Your task to perform on an android device: turn notification dots off Image 0: 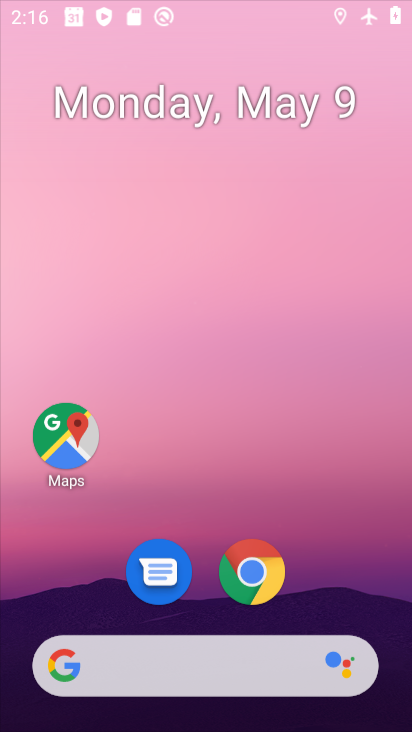
Step 0: click (223, 96)
Your task to perform on an android device: turn notification dots off Image 1: 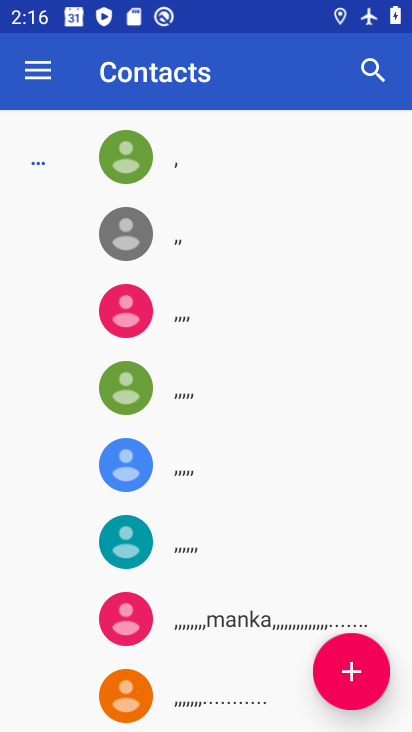
Step 1: press home button
Your task to perform on an android device: turn notification dots off Image 2: 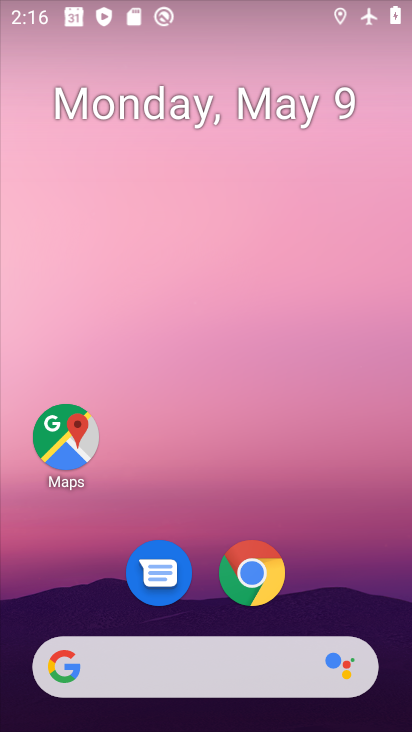
Step 2: drag from (342, 610) to (226, 137)
Your task to perform on an android device: turn notification dots off Image 3: 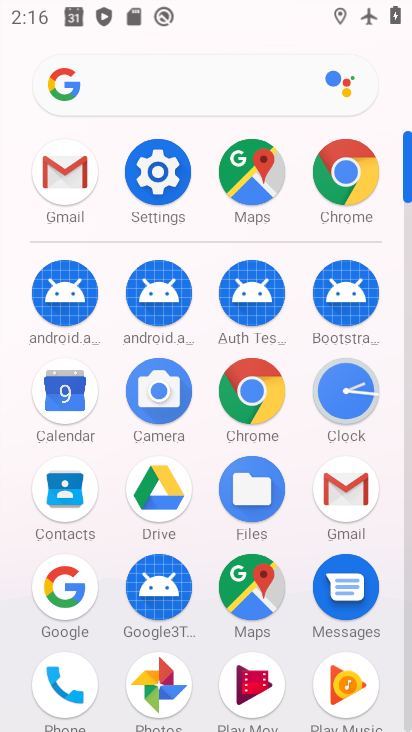
Step 3: drag from (341, 486) to (379, 556)
Your task to perform on an android device: turn notification dots off Image 4: 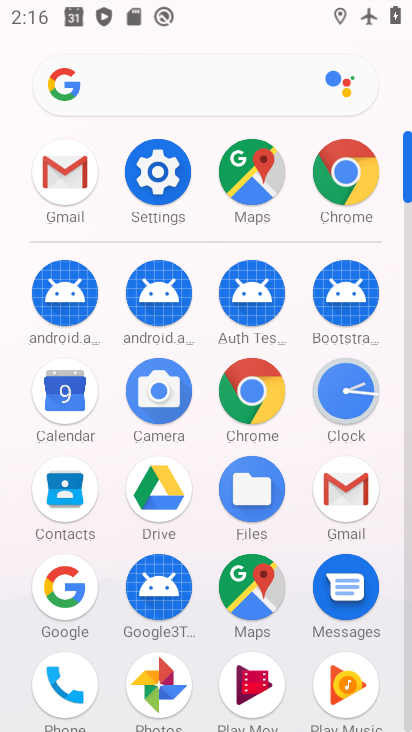
Step 4: click (157, 191)
Your task to perform on an android device: turn notification dots off Image 5: 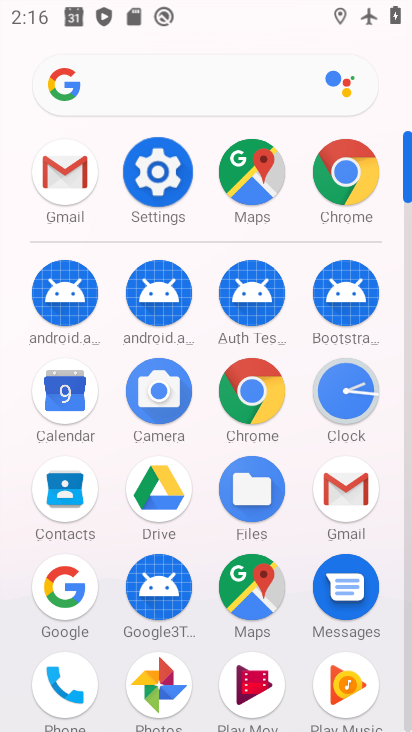
Step 5: click (149, 179)
Your task to perform on an android device: turn notification dots off Image 6: 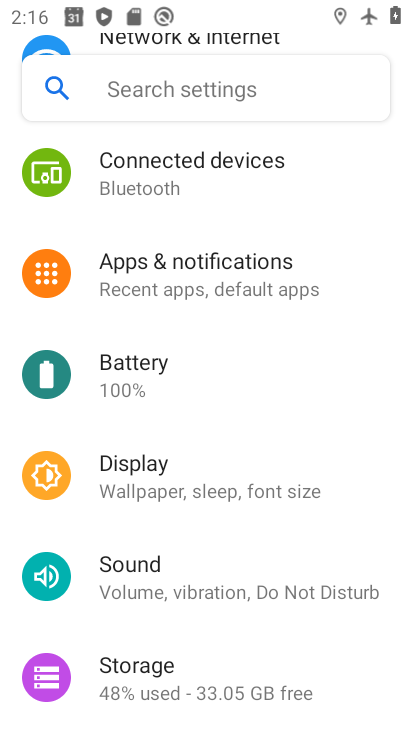
Step 6: click (217, 280)
Your task to perform on an android device: turn notification dots off Image 7: 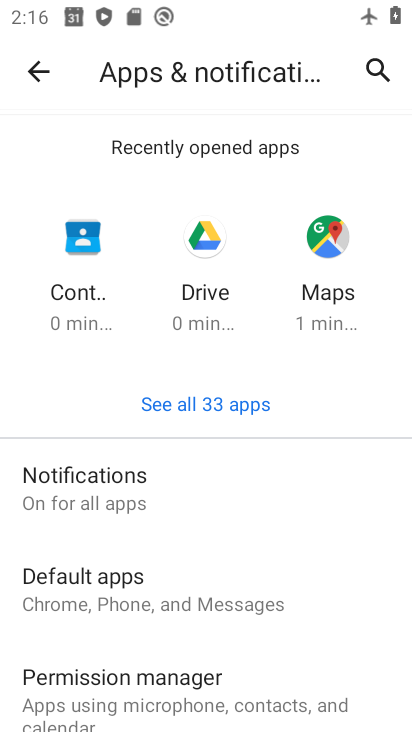
Step 7: click (75, 486)
Your task to perform on an android device: turn notification dots off Image 8: 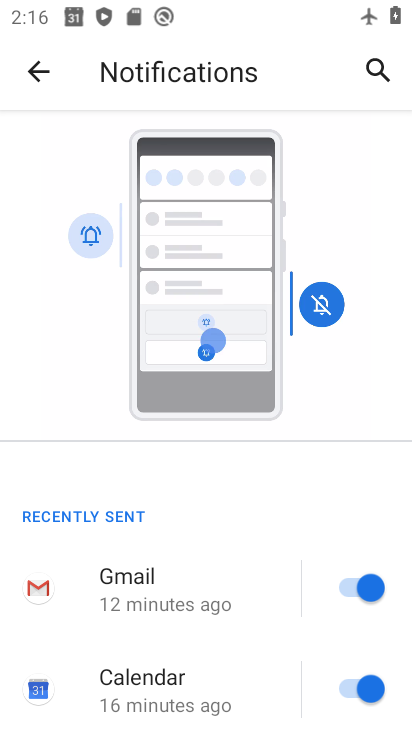
Step 8: drag from (193, 632) to (111, 70)
Your task to perform on an android device: turn notification dots off Image 9: 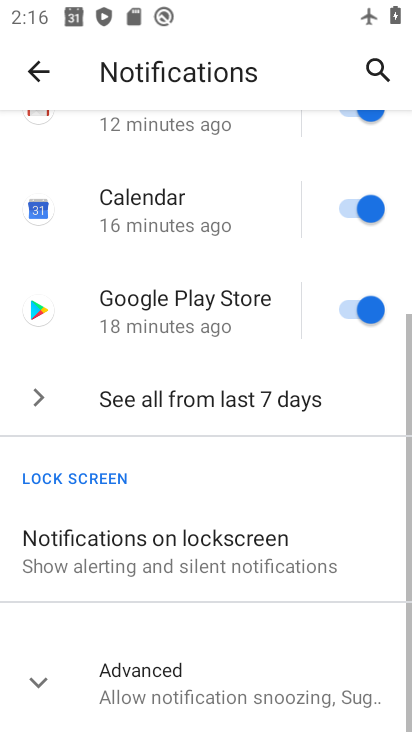
Step 9: drag from (153, 499) to (128, 12)
Your task to perform on an android device: turn notification dots off Image 10: 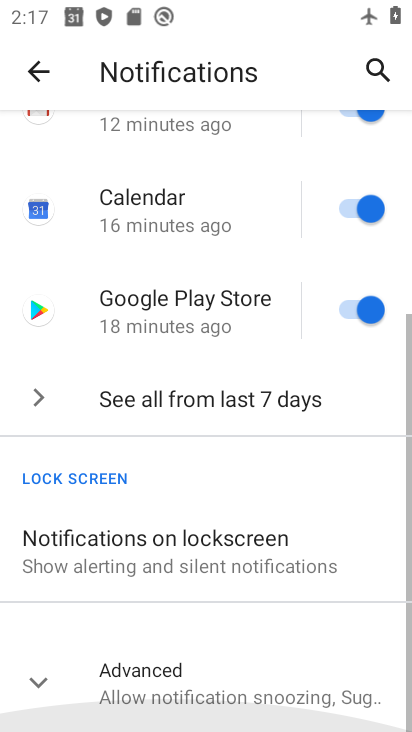
Step 10: drag from (190, 575) to (223, 37)
Your task to perform on an android device: turn notification dots off Image 11: 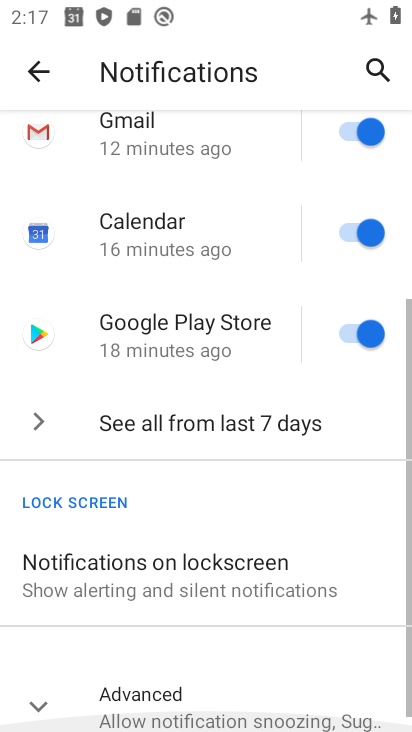
Step 11: click (137, 683)
Your task to perform on an android device: turn notification dots off Image 12: 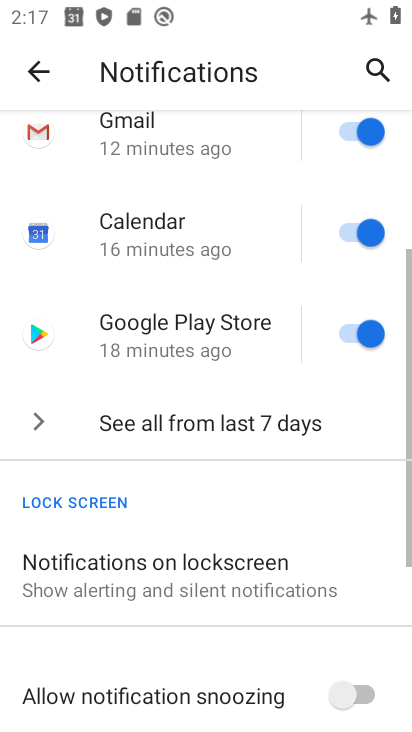
Step 12: task complete